Your task to perform on an android device: Go to ESPN.com Image 0: 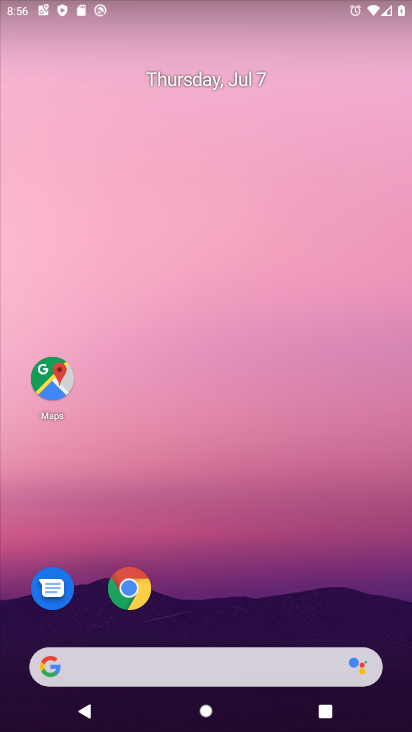
Step 0: press home button
Your task to perform on an android device: Go to ESPN.com Image 1: 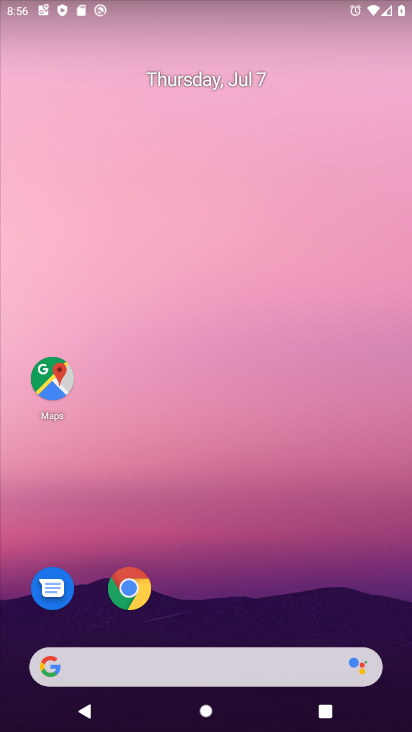
Step 1: drag from (212, 627) to (231, 58)
Your task to perform on an android device: Go to ESPN.com Image 2: 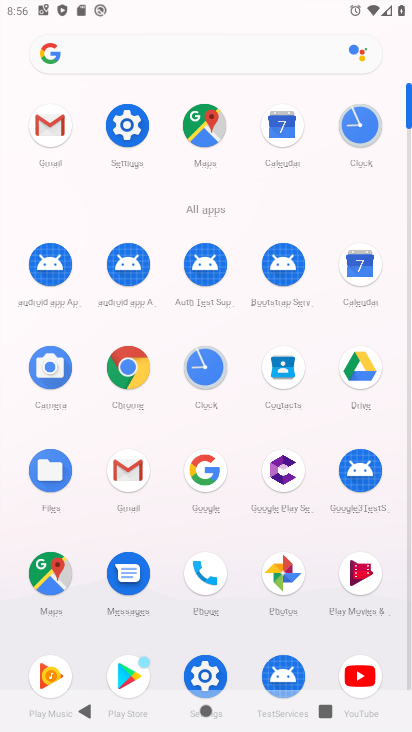
Step 2: click (125, 359)
Your task to perform on an android device: Go to ESPN.com Image 3: 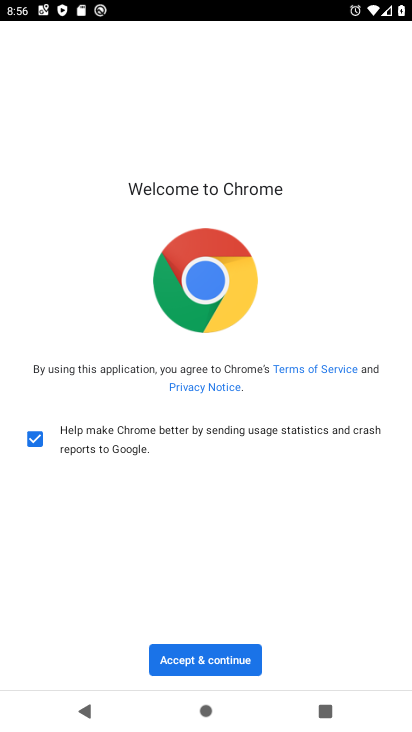
Step 3: click (199, 656)
Your task to perform on an android device: Go to ESPN.com Image 4: 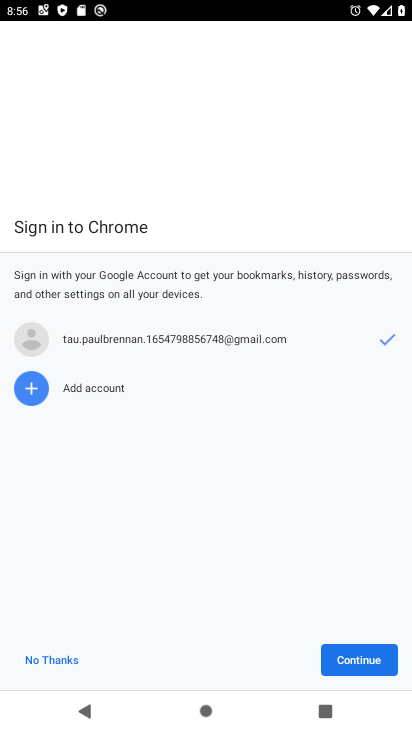
Step 4: click (360, 653)
Your task to perform on an android device: Go to ESPN.com Image 5: 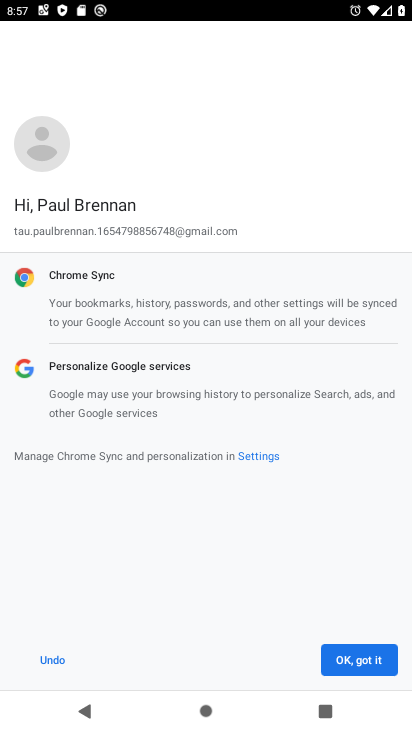
Step 5: click (360, 658)
Your task to perform on an android device: Go to ESPN.com Image 6: 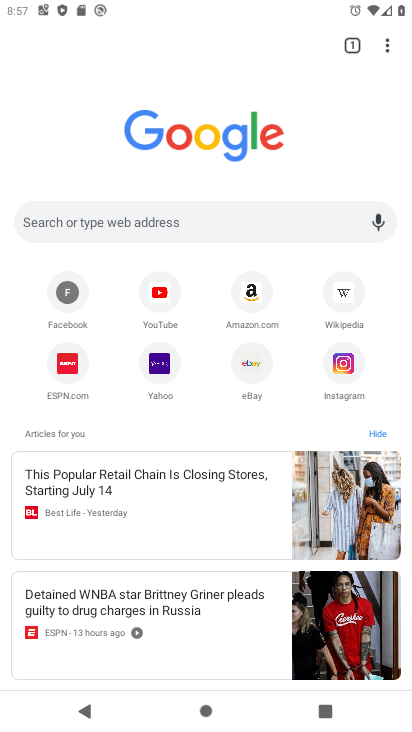
Step 6: click (63, 355)
Your task to perform on an android device: Go to ESPN.com Image 7: 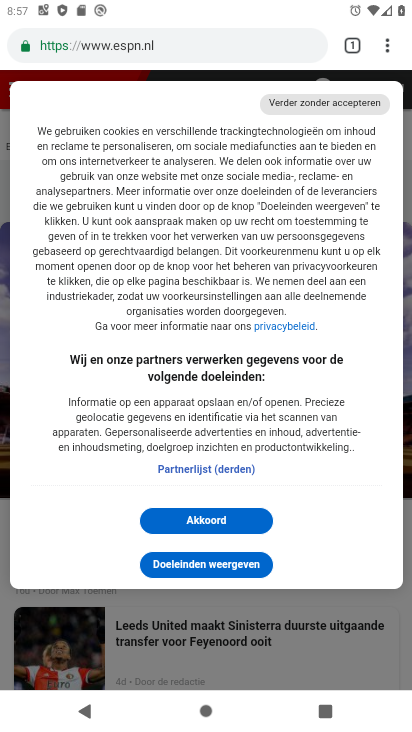
Step 7: click (200, 514)
Your task to perform on an android device: Go to ESPN.com Image 8: 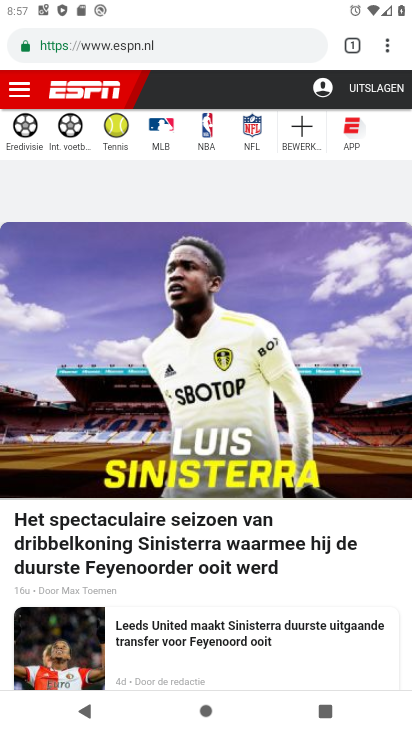
Step 8: task complete